Your task to perform on an android device: Open the stopwatch Image 0: 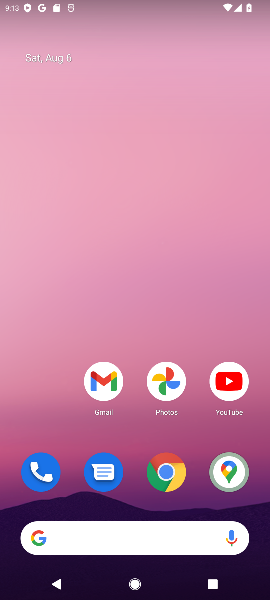
Step 0: drag from (255, 579) to (242, 132)
Your task to perform on an android device: Open the stopwatch Image 1: 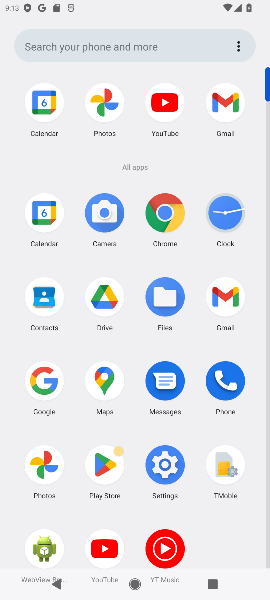
Step 1: click (221, 222)
Your task to perform on an android device: Open the stopwatch Image 2: 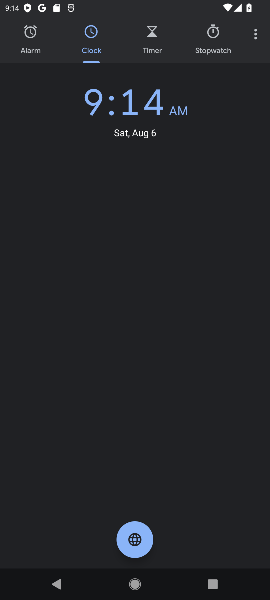
Step 2: click (252, 37)
Your task to perform on an android device: Open the stopwatch Image 3: 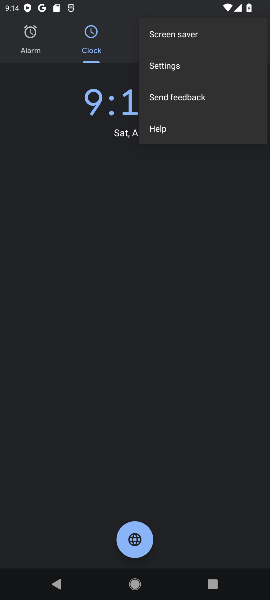
Step 3: click (153, 66)
Your task to perform on an android device: Open the stopwatch Image 4: 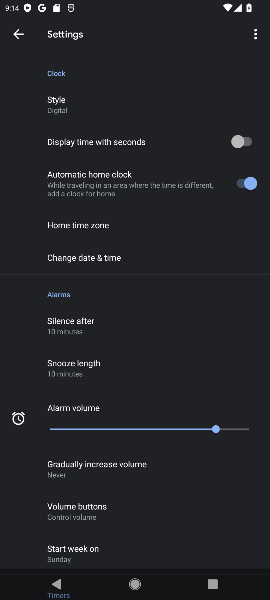
Step 4: press home button
Your task to perform on an android device: Open the stopwatch Image 5: 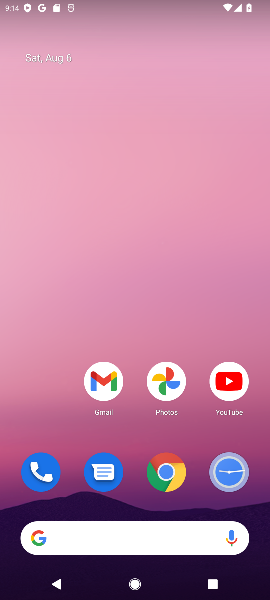
Step 5: click (234, 463)
Your task to perform on an android device: Open the stopwatch Image 6: 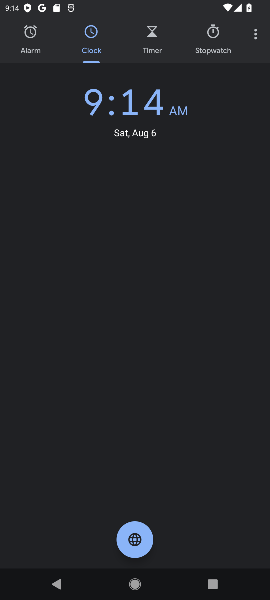
Step 6: click (203, 38)
Your task to perform on an android device: Open the stopwatch Image 7: 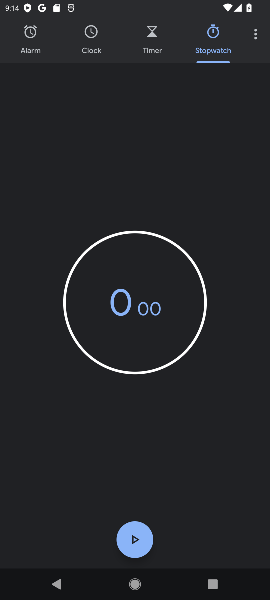
Step 7: task complete